Your task to perform on an android device: Add usb-c to usb-a to the cart on amazon Image 0: 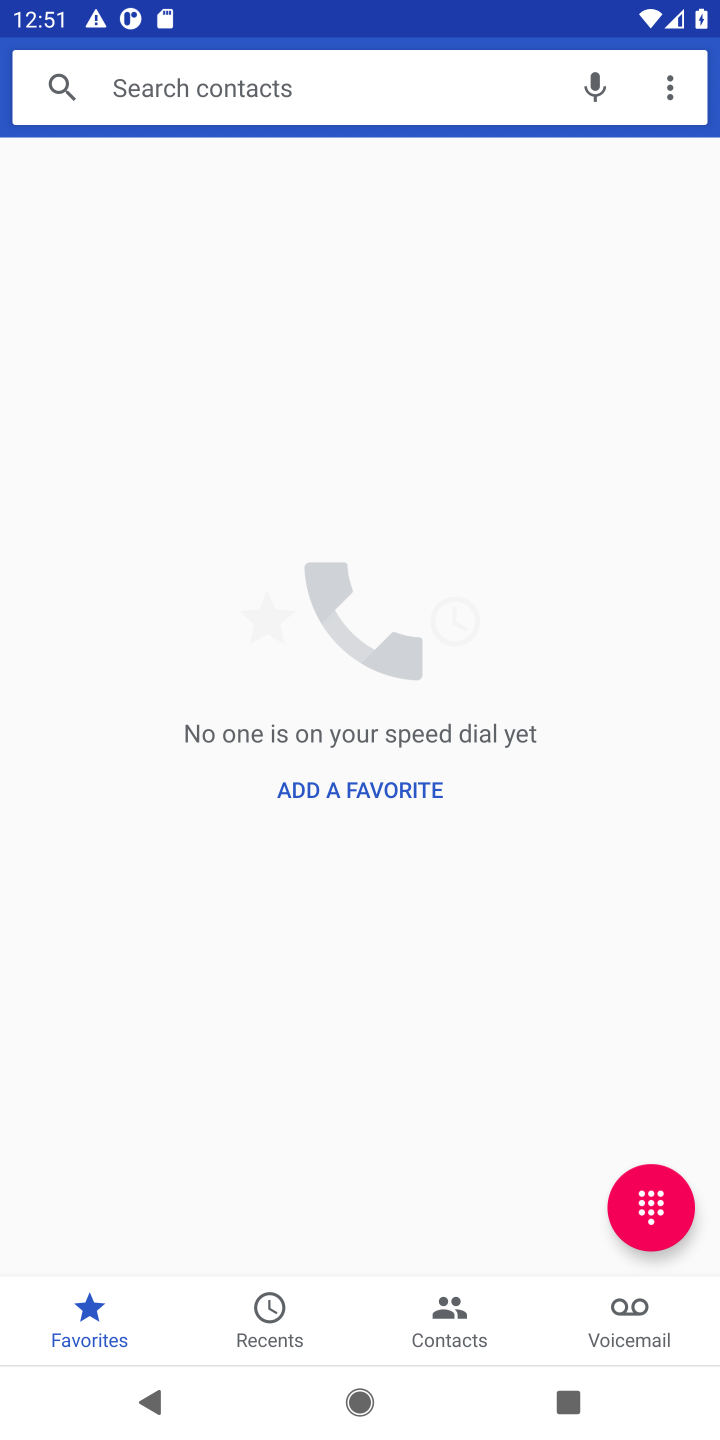
Step 0: press home button
Your task to perform on an android device: Add usb-c to usb-a to the cart on amazon Image 1: 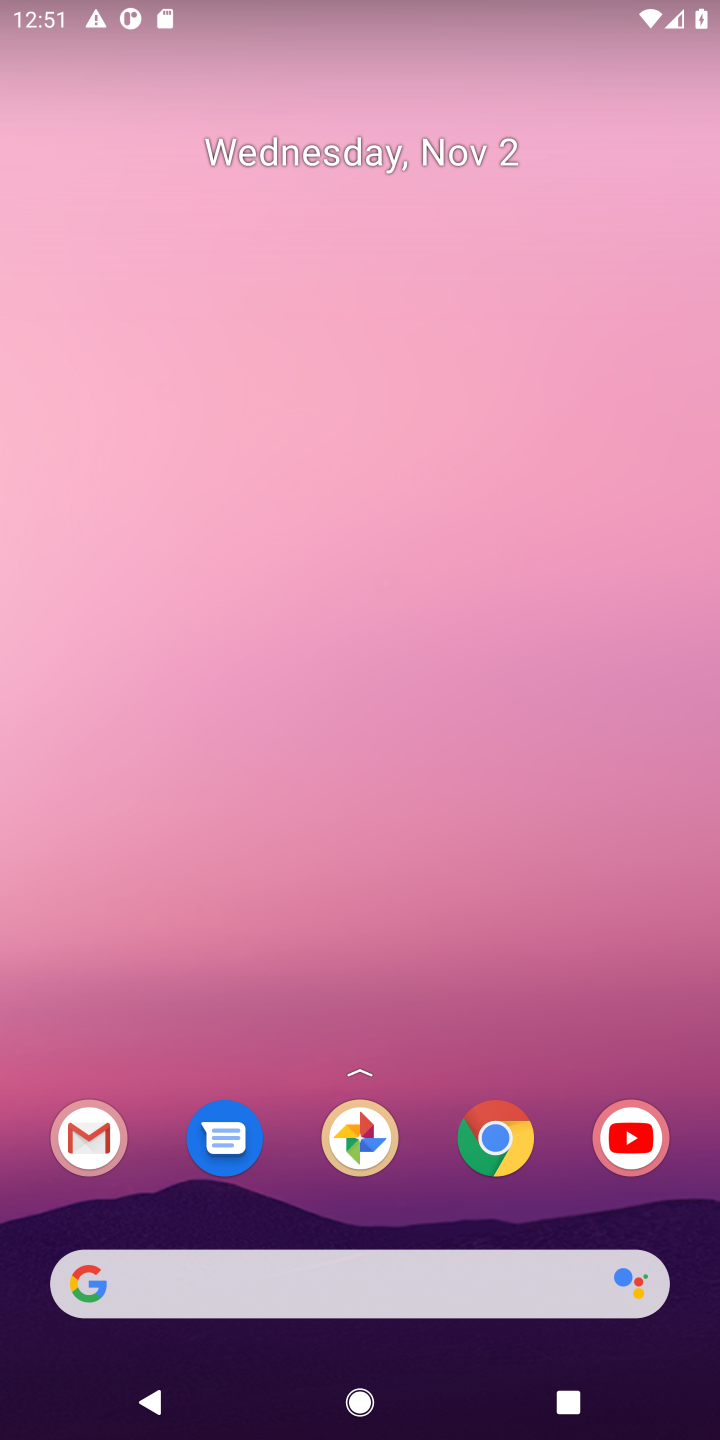
Step 1: click (506, 1150)
Your task to perform on an android device: Add usb-c to usb-a to the cart on amazon Image 2: 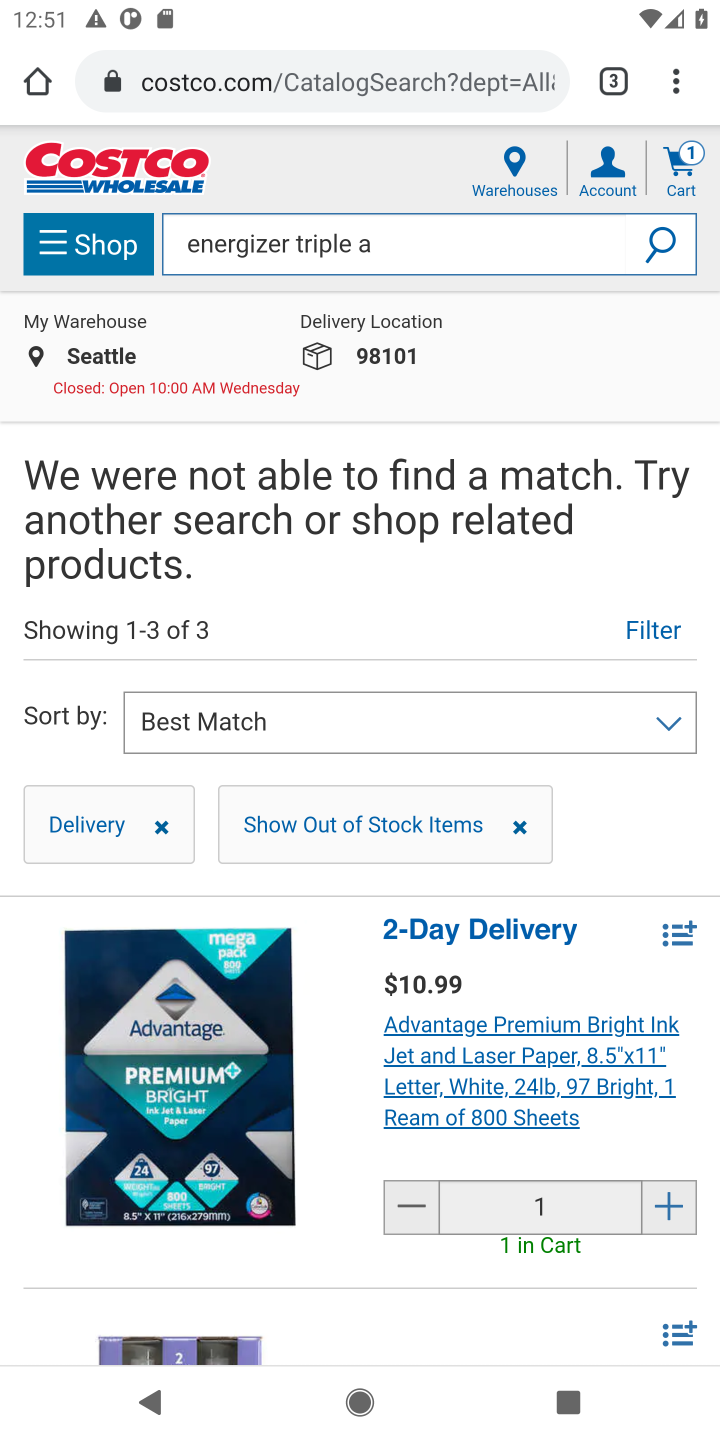
Step 2: click (603, 86)
Your task to perform on an android device: Add usb-c to usb-a to the cart on amazon Image 3: 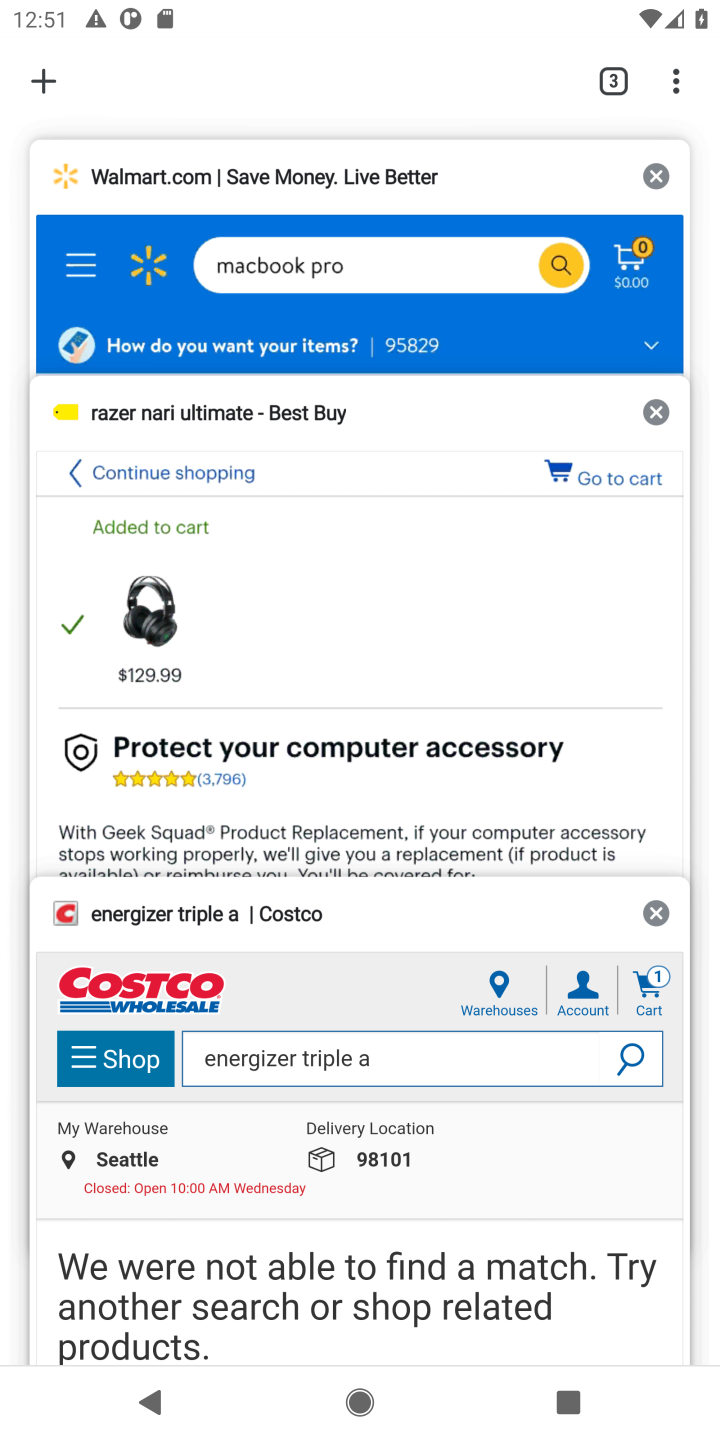
Step 3: click (28, 70)
Your task to perform on an android device: Add usb-c to usb-a to the cart on amazon Image 4: 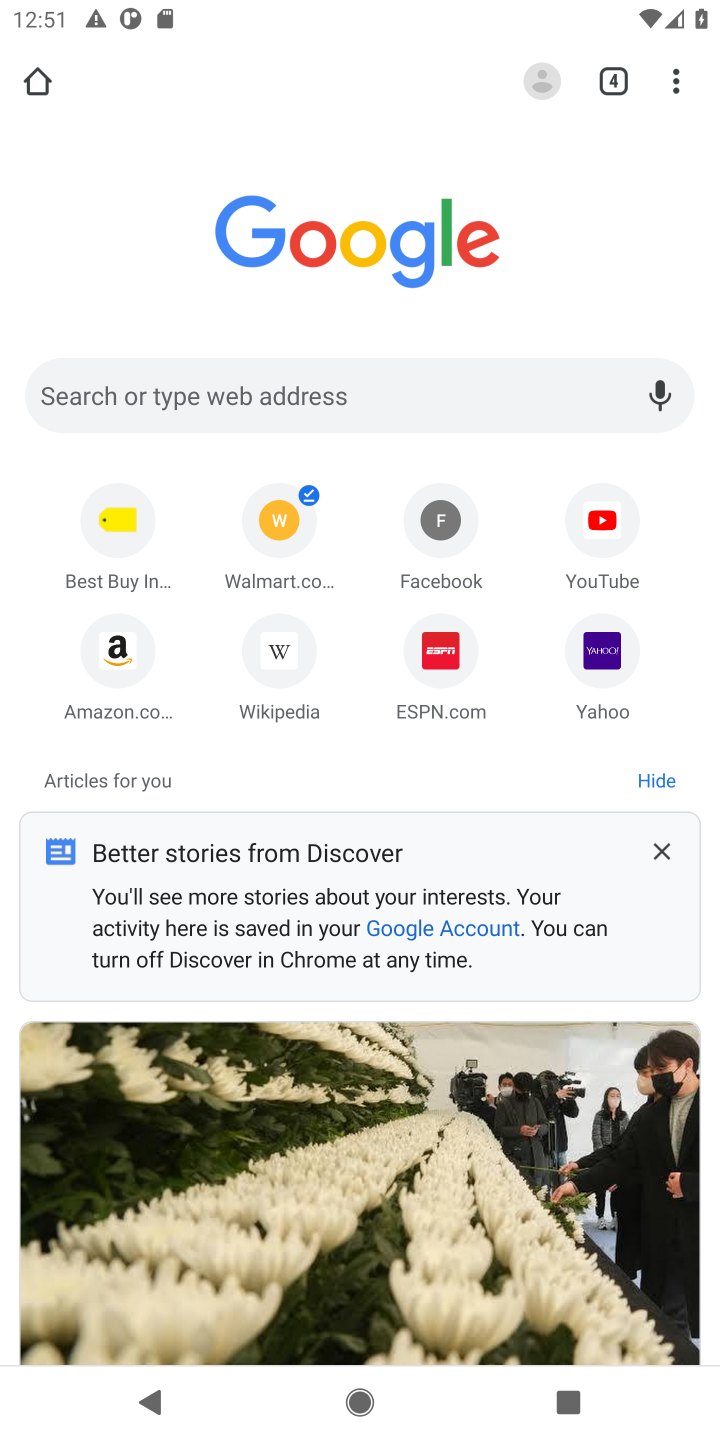
Step 4: click (212, 373)
Your task to perform on an android device: Add usb-c to usb-a to the cart on amazon Image 5: 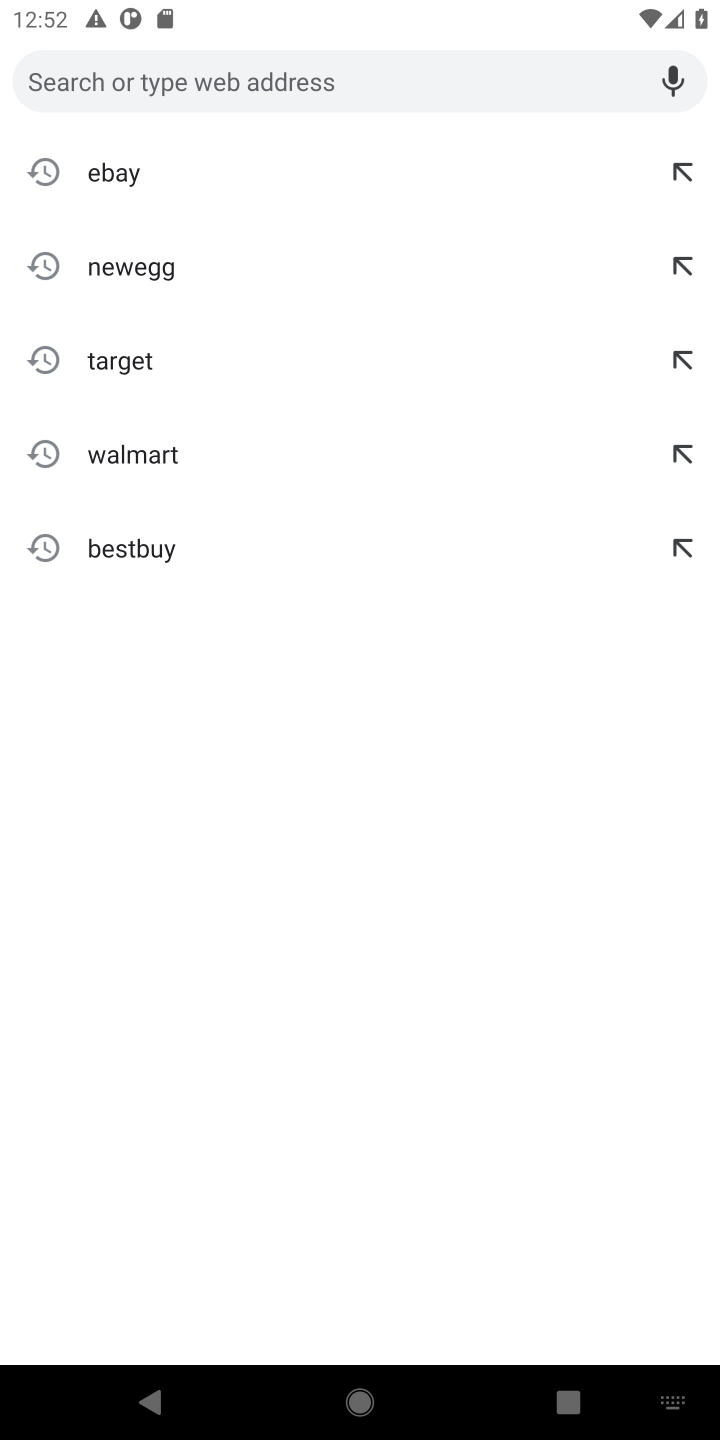
Step 5: type "amazon"
Your task to perform on an android device: Add usb-c to usb-a to the cart on amazon Image 6: 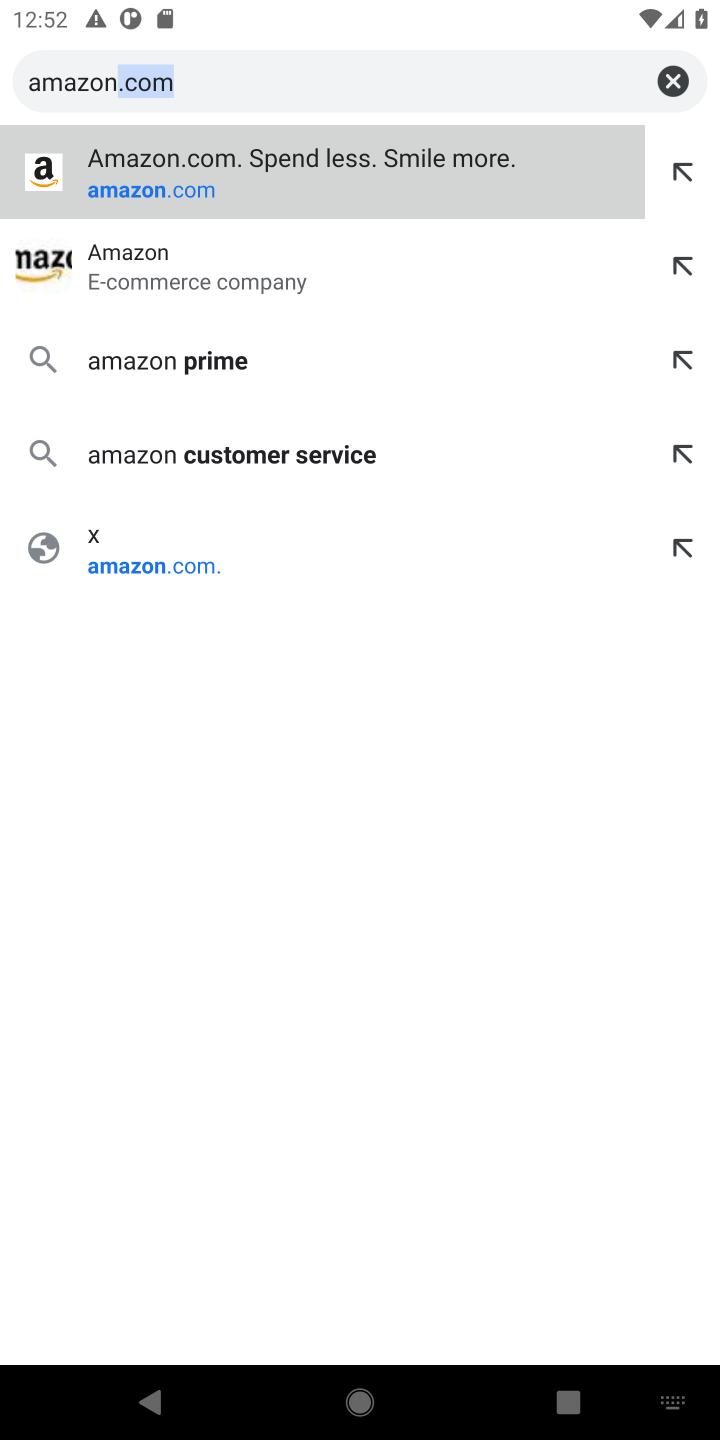
Step 6: click (183, 171)
Your task to perform on an android device: Add usb-c to usb-a to the cart on amazon Image 7: 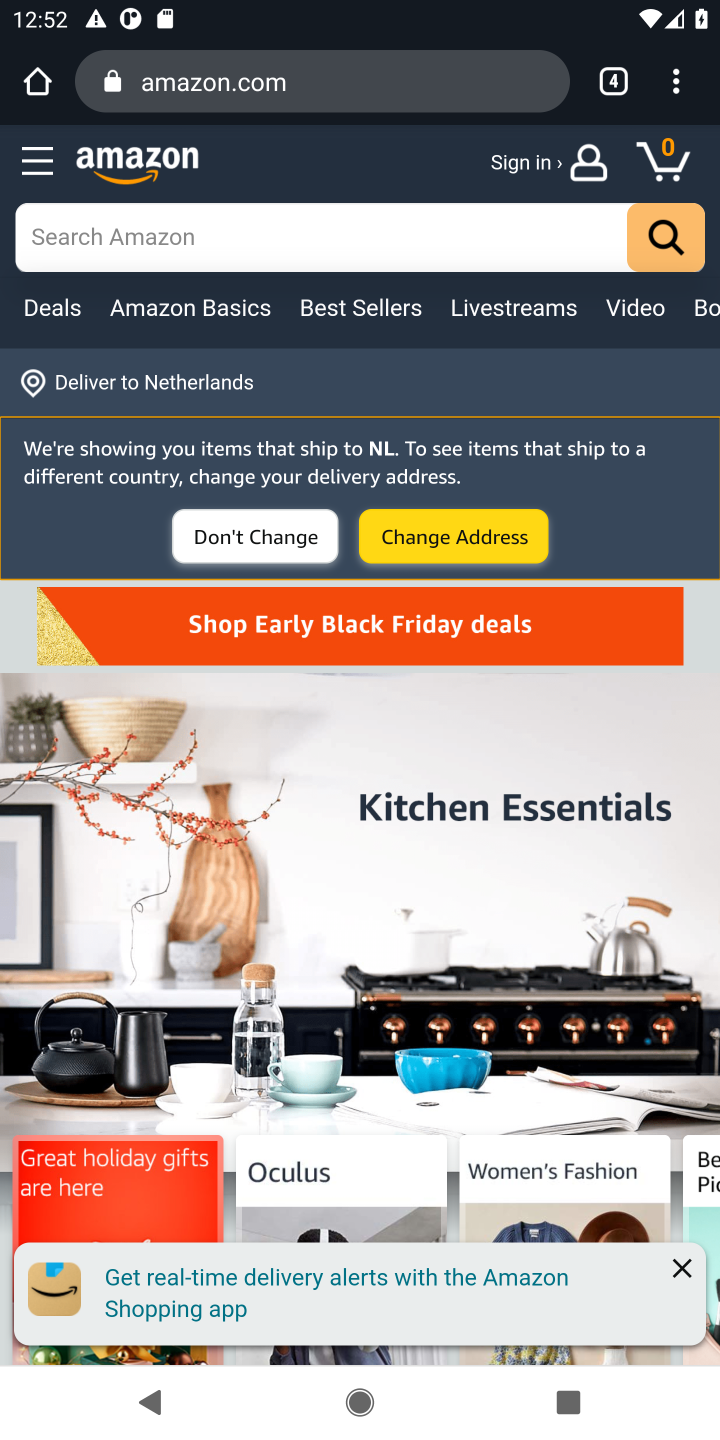
Step 7: click (157, 224)
Your task to perform on an android device: Add usb-c to usb-a to the cart on amazon Image 8: 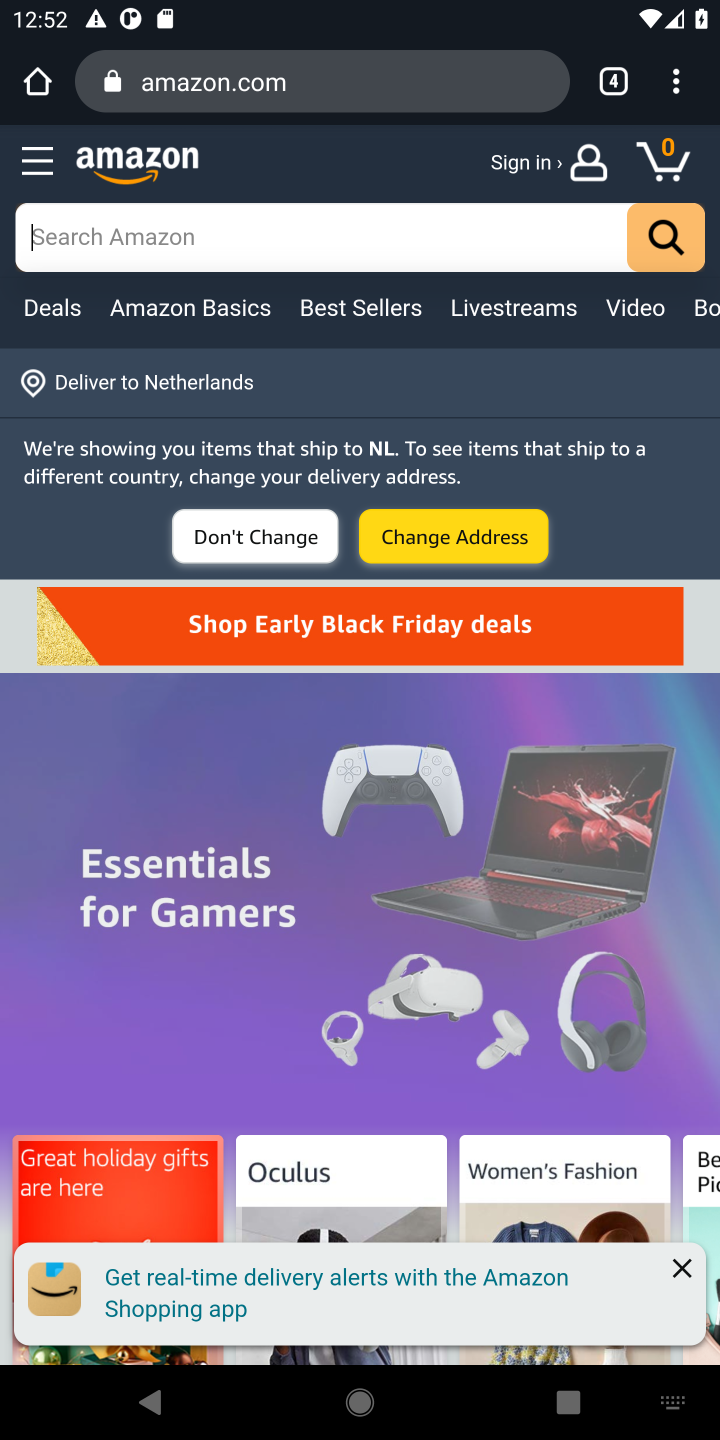
Step 8: type "usb-c to usb-a"
Your task to perform on an android device: Add usb-c to usb-a to the cart on amazon Image 9: 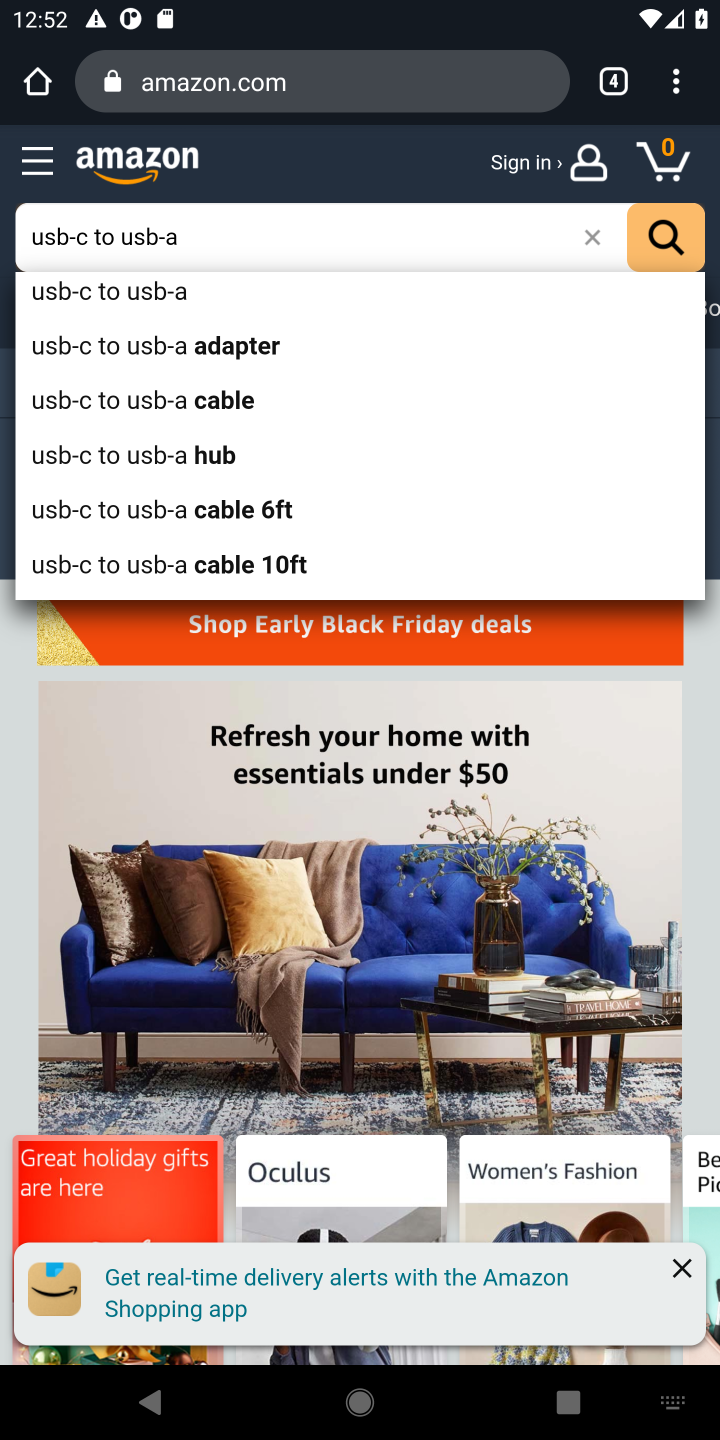
Step 9: click (49, 293)
Your task to perform on an android device: Add usb-c to usb-a to the cart on amazon Image 10: 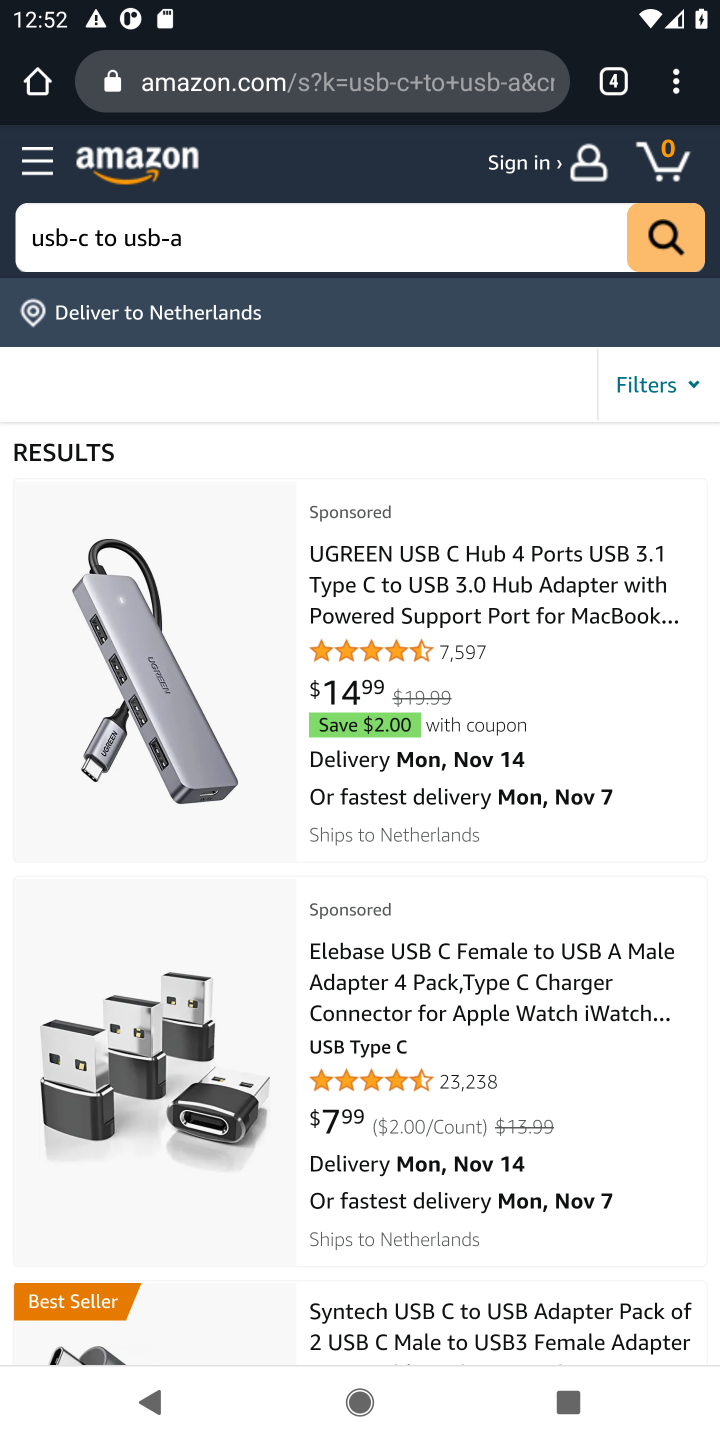
Step 10: click (359, 590)
Your task to perform on an android device: Add usb-c to usb-a to the cart on amazon Image 11: 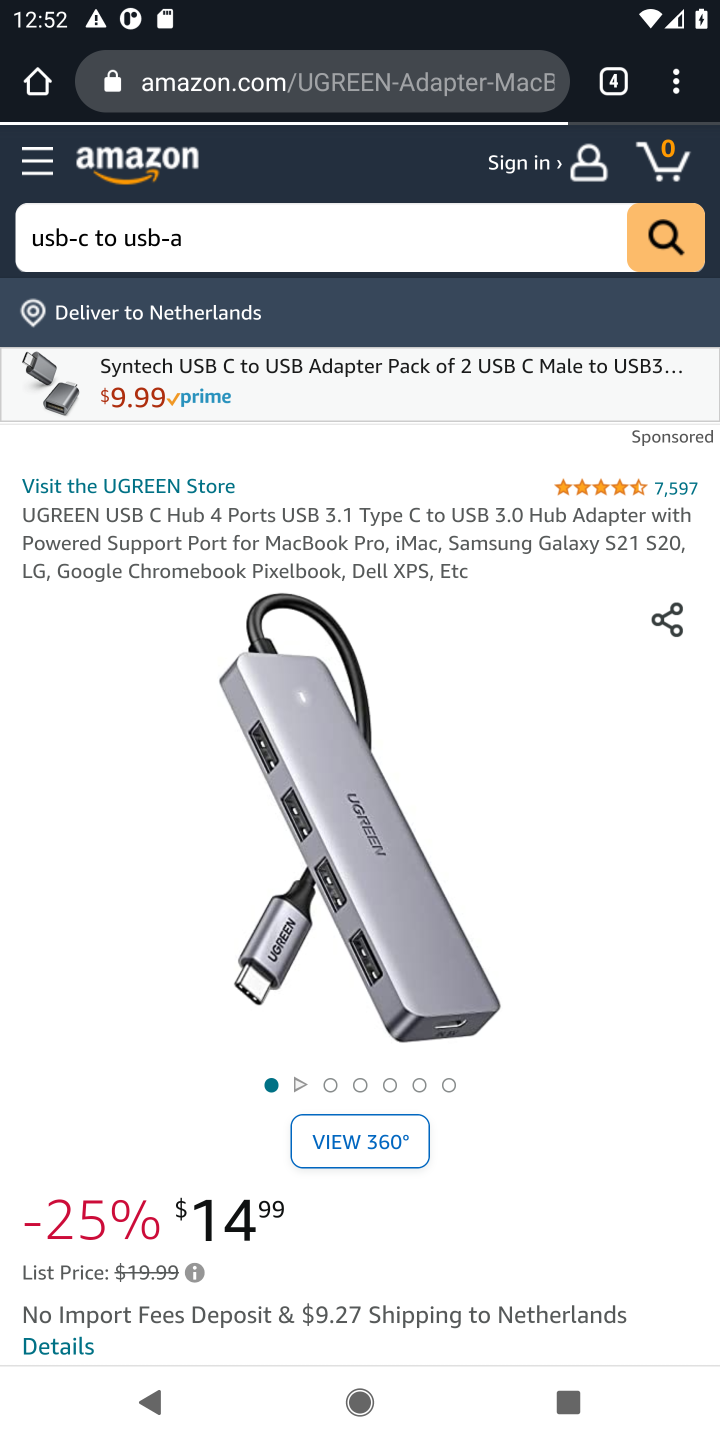
Step 11: drag from (365, 1242) to (521, 376)
Your task to perform on an android device: Add usb-c to usb-a to the cart on amazon Image 12: 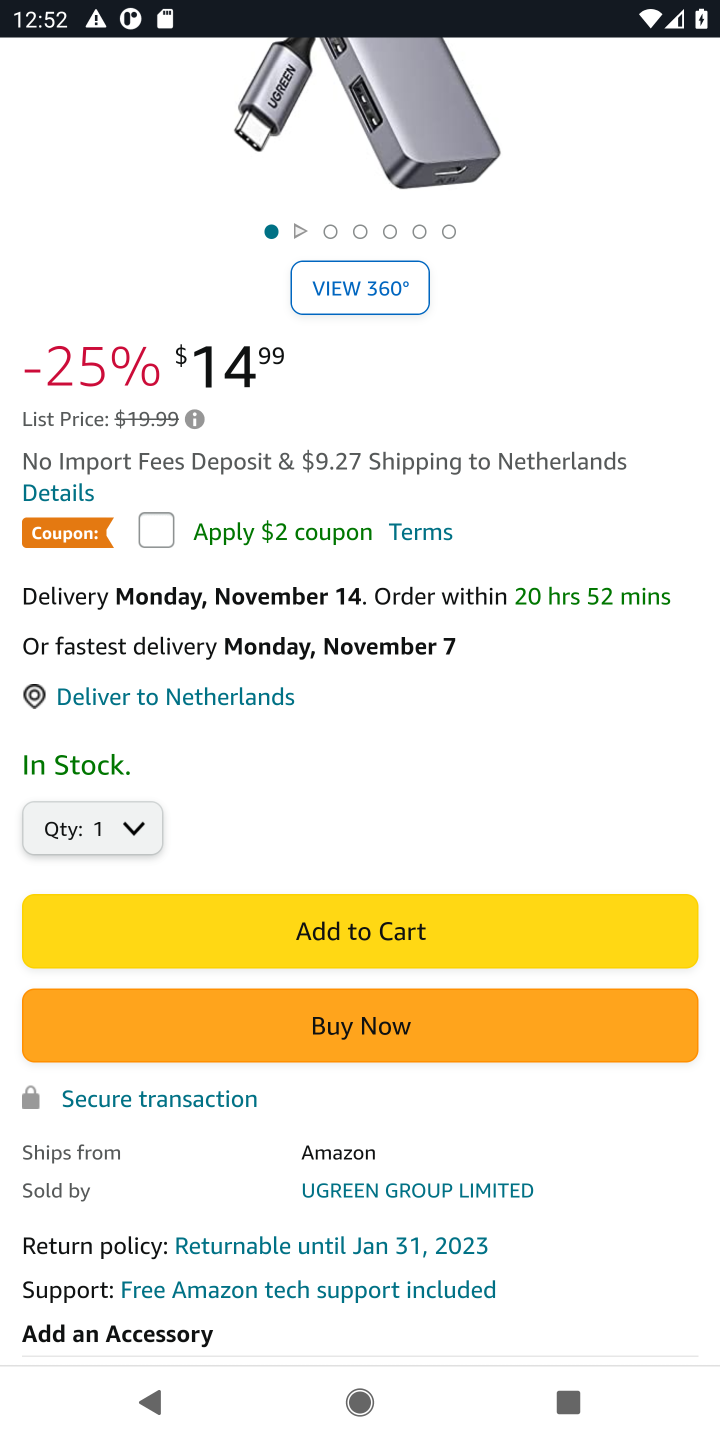
Step 12: click (411, 914)
Your task to perform on an android device: Add usb-c to usb-a to the cart on amazon Image 13: 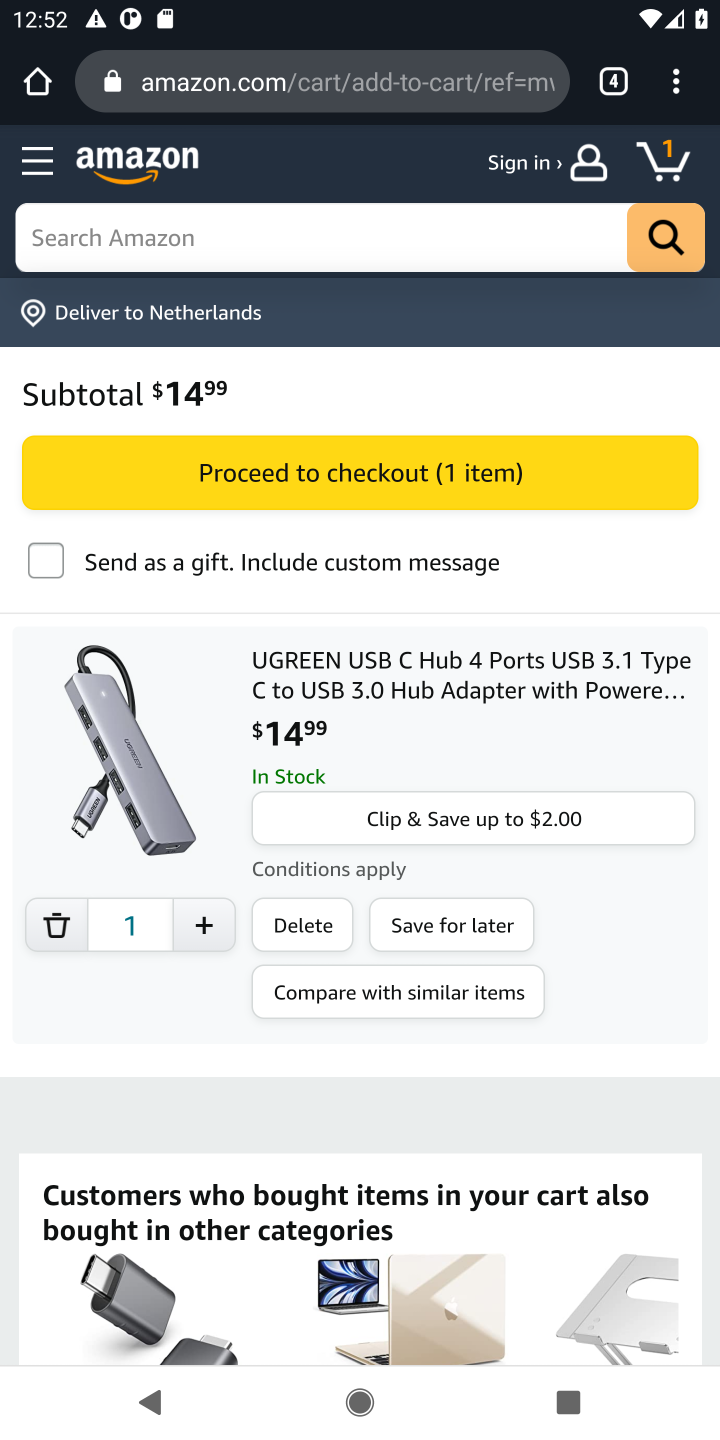
Step 13: task complete